Your task to perform on an android device: open device folders in google photos Image 0: 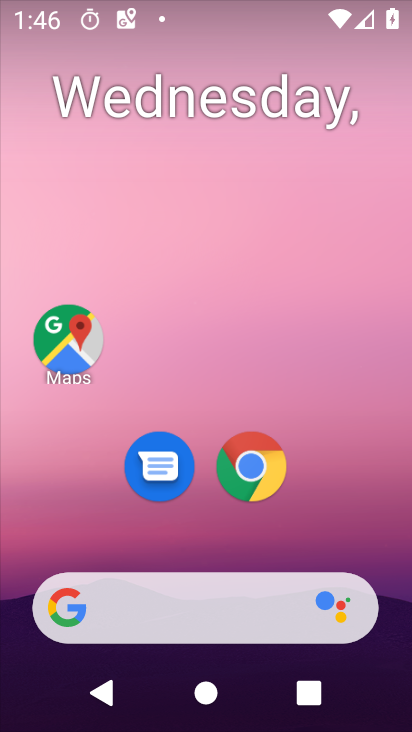
Step 0: drag from (202, 499) to (199, 81)
Your task to perform on an android device: open device folders in google photos Image 1: 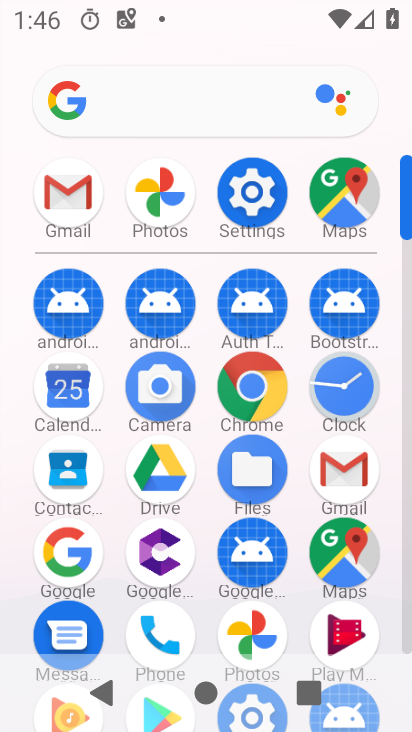
Step 1: click (166, 204)
Your task to perform on an android device: open device folders in google photos Image 2: 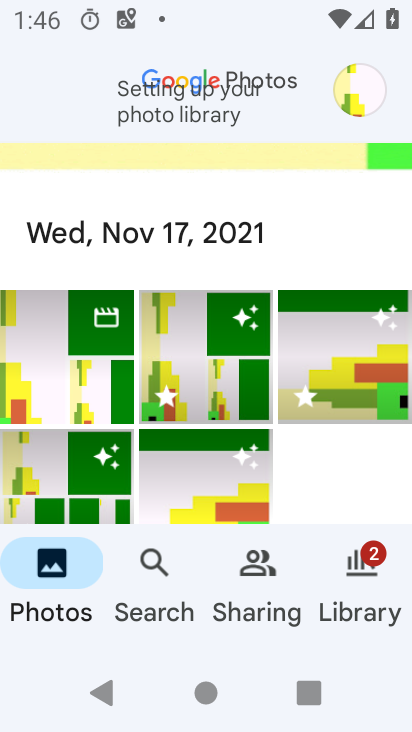
Step 2: task complete